Your task to perform on an android device: turn on bluetooth scan Image 0: 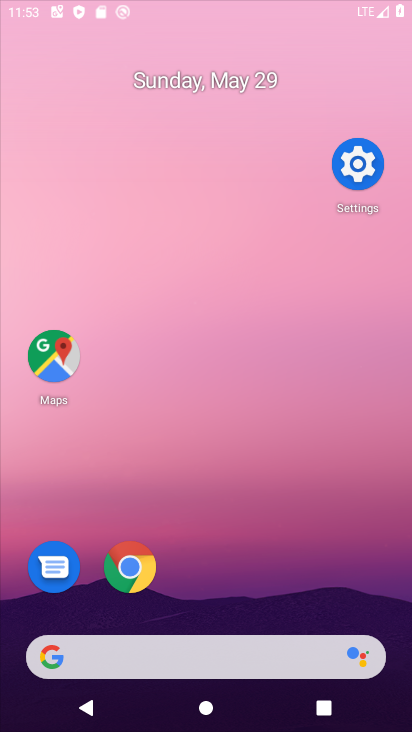
Step 0: click (229, 184)
Your task to perform on an android device: turn on bluetooth scan Image 1: 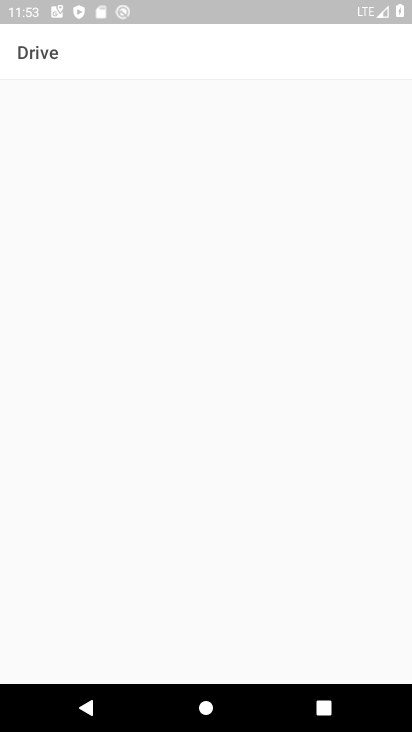
Step 1: press home button
Your task to perform on an android device: turn on bluetooth scan Image 2: 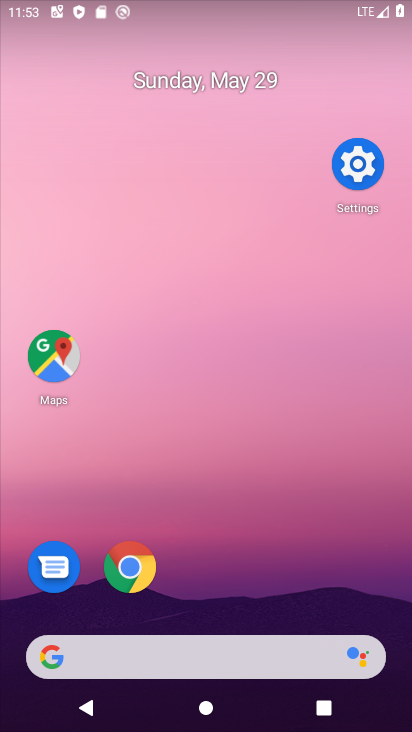
Step 2: drag from (301, 593) to (328, 202)
Your task to perform on an android device: turn on bluetooth scan Image 3: 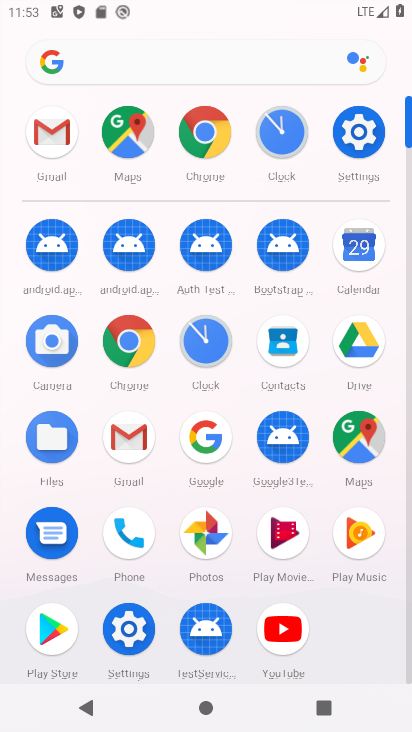
Step 3: click (359, 148)
Your task to perform on an android device: turn on bluetooth scan Image 4: 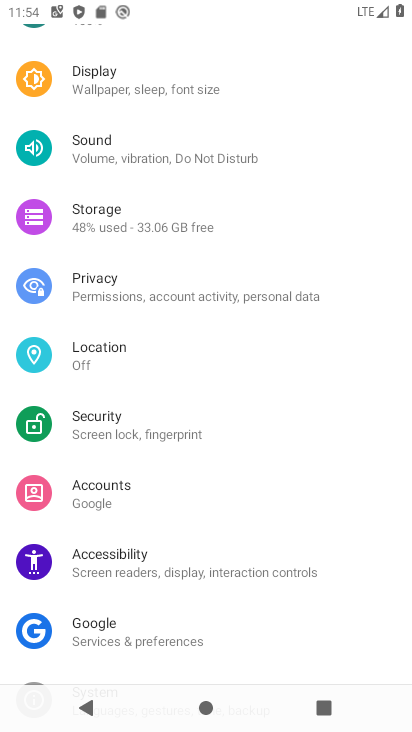
Step 4: drag from (291, 260) to (289, 556)
Your task to perform on an android device: turn on bluetooth scan Image 5: 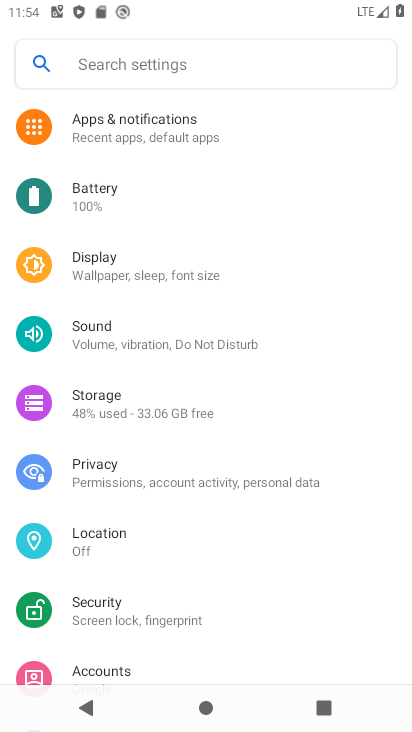
Step 5: click (134, 529)
Your task to perform on an android device: turn on bluetooth scan Image 6: 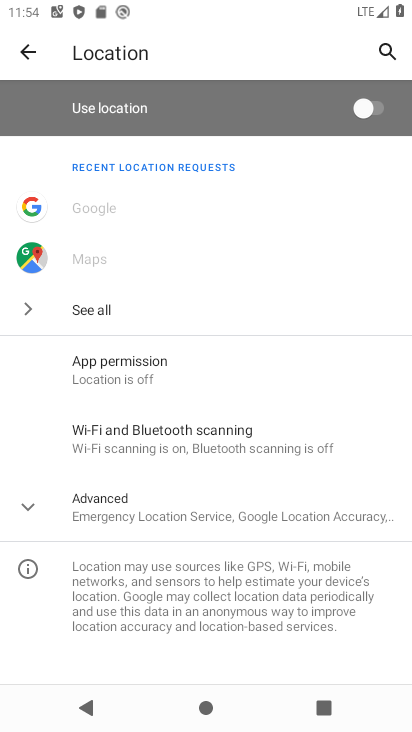
Step 6: drag from (172, 596) to (228, 316)
Your task to perform on an android device: turn on bluetooth scan Image 7: 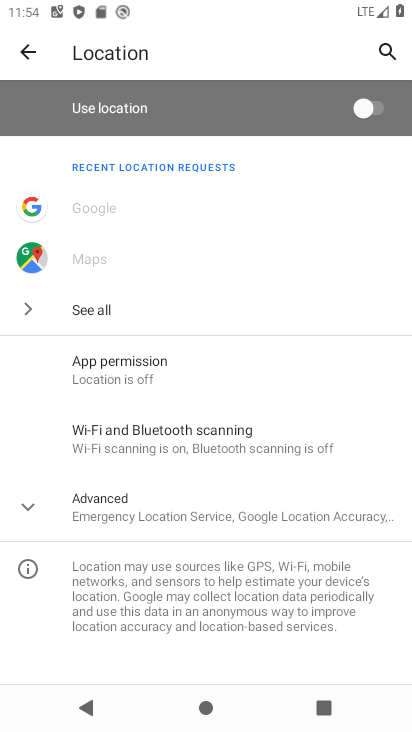
Step 7: click (235, 458)
Your task to perform on an android device: turn on bluetooth scan Image 8: 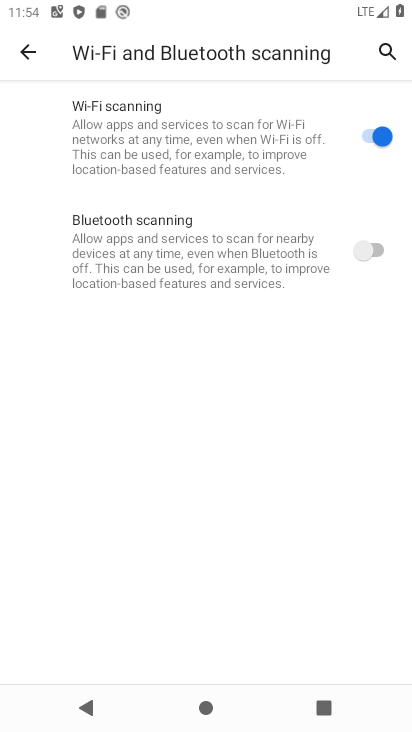
Step 8: click (379, 256)
Your task to perform on an android device: turn on bluetooth scan Image 9: 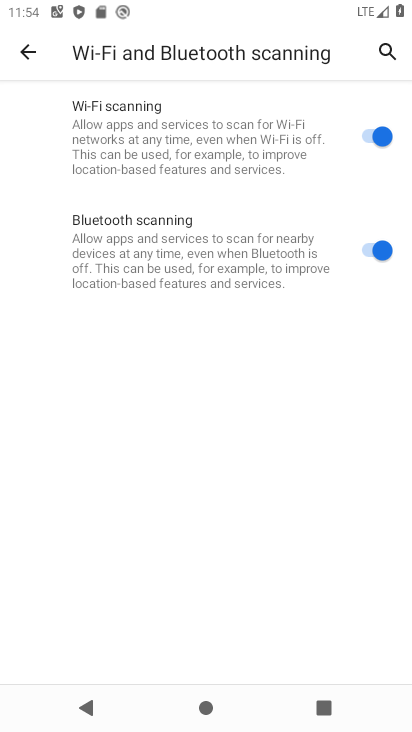
Step 9: task complete